Your task to perform on an android device: Go to Android settings Image 0: 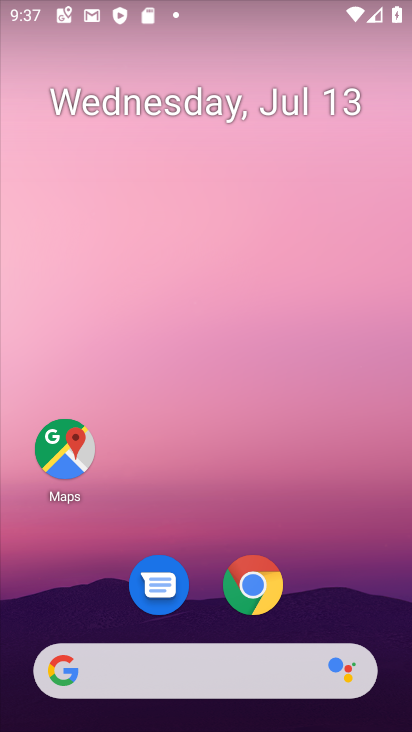
Step 0: drag from (294, 495) to (243, 24)
Your task to perform on an android device: Go to Android settings Image 1: 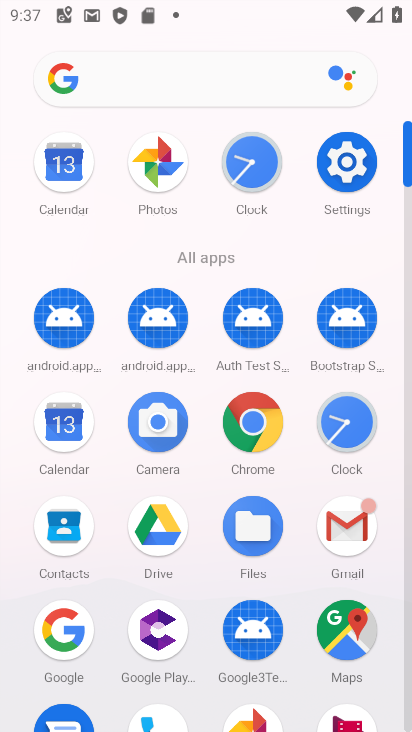
Step 1: click (347, 167)
Your task to perform on an android device: Go to Android settings Image 2: 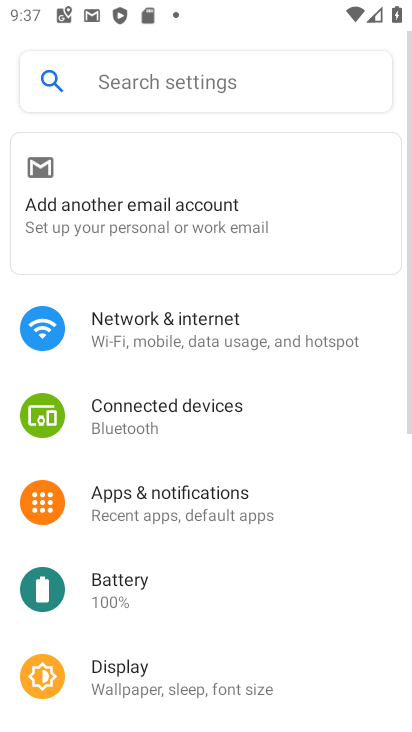
Step 2: drag from (243, 598) to (233, 122)
Your task to perform on an android device: Go to Android settings Image 3: 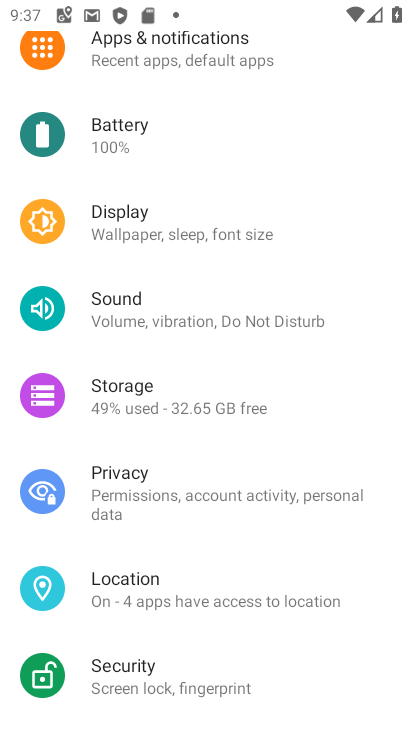
Step 3: drag from (206, 544) to (163, 60)
Your task to perform on an android device: Go to Android settings Image 4: 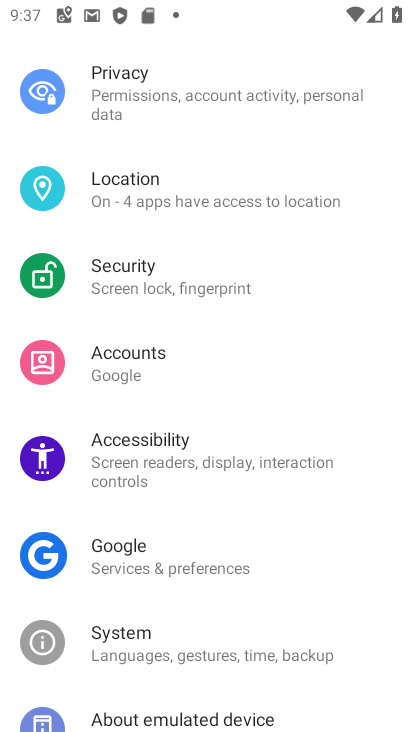
Step 4: drag from (207, 521) to (208, 147)
Your task to perform on an android device: Go to Android settings Image 5: 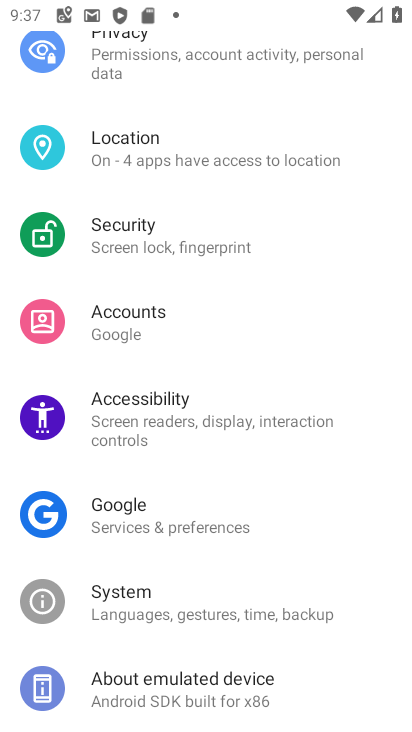
Step 5: click (200, 695)
Your task to perform on an android device: Go to Android settings Image 6: 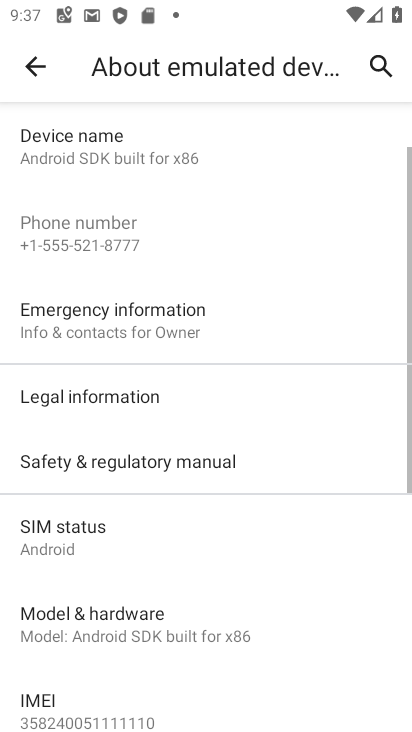
Step 6: task complete